Your task to perform on an android device: delete a single message in the gmail app Image 0: 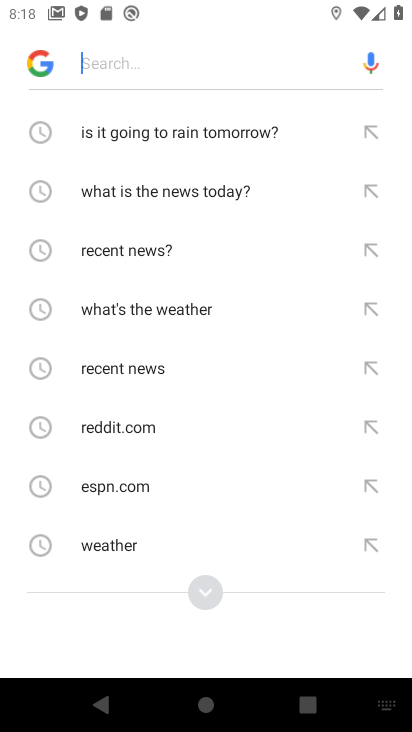
Step 0: press home button
Your task to perform on an android device: delete a single message in the gmail app Image 1: 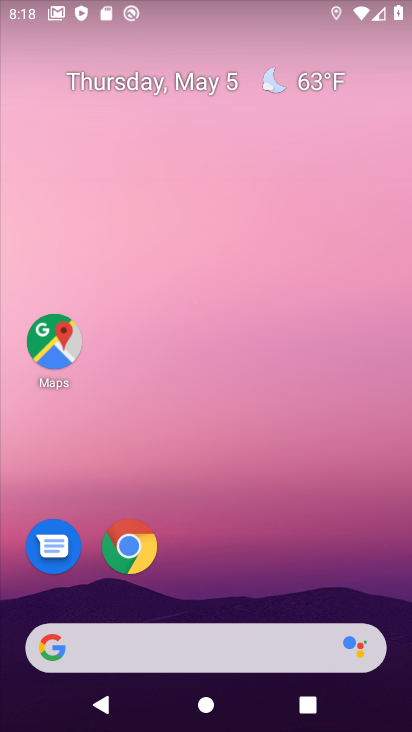
Step 1: drag from (294, 601) to (170, 80)
Your task to perform on an android device: delete a single message in the gmail app Image 2: 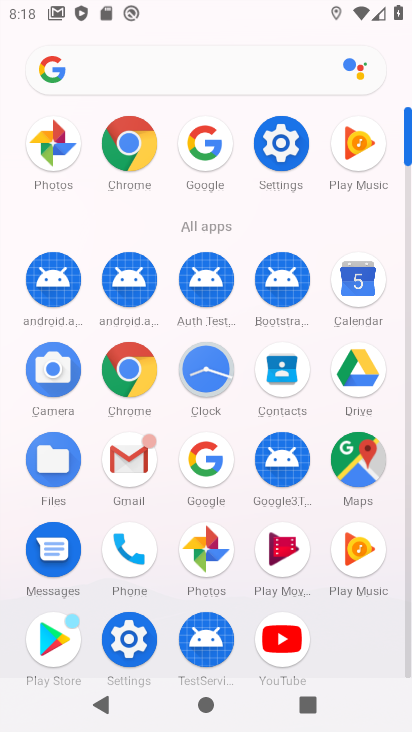
Step 2: click (129, 462)
Your task to perform on an android device: delete a single message in the gmail app Image 3: 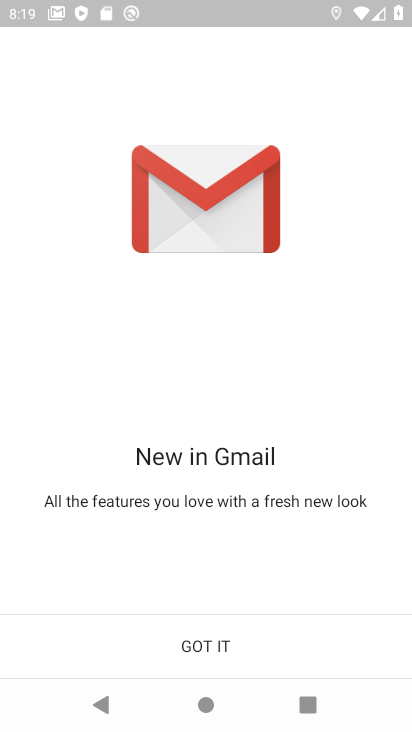
Step 3: click (215, 651)
Your task to perform on an android device: delete a single message in the gmail app Image 4: 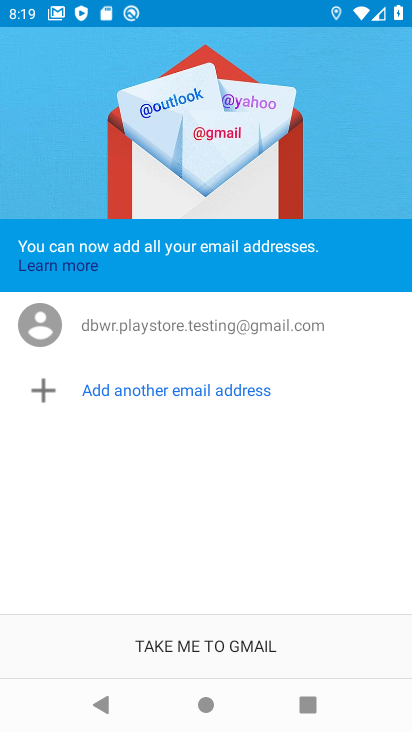
Step 4: click (216, 637)
Your task to perform on an android device: delete a single message in the gmail app Image 5: 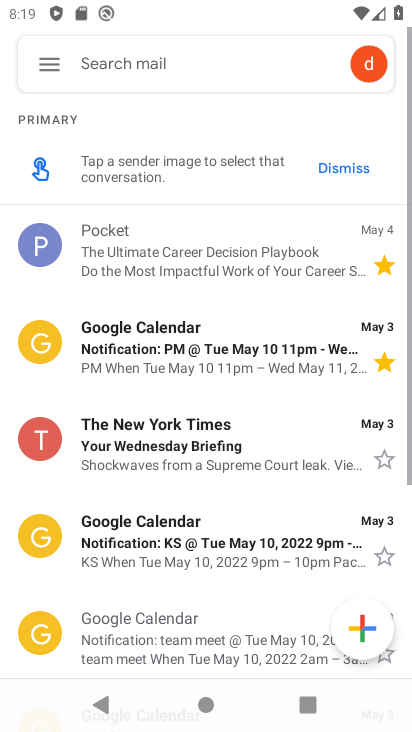
Step 5: click (249, 260)
Your task to perform on an android device: delete a single message in the gmail app Image 6: 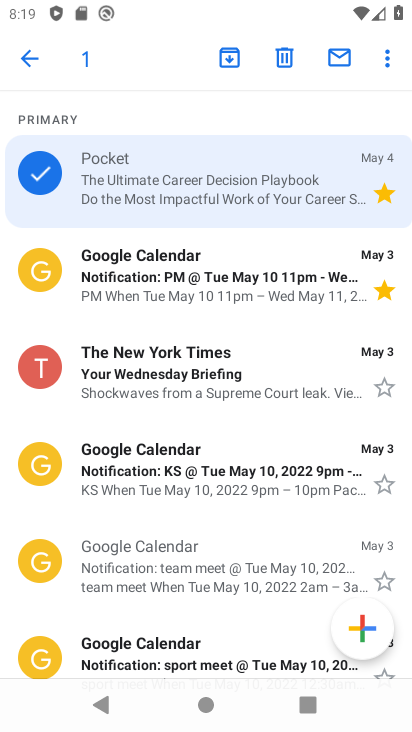
Step 6: click (280, 63)
Your task to perform on an android device: delete a single message in the gmail app Image 7: 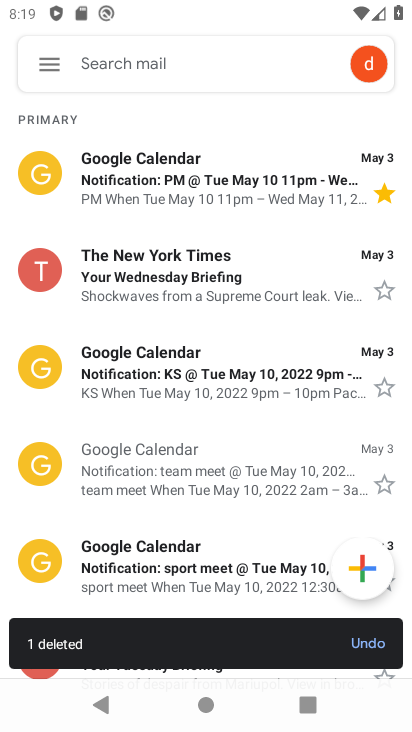
Step 7: task complete